Your task to perform on an android device: open app "Grab" (install if not already installed) and go to login screen Image 0: 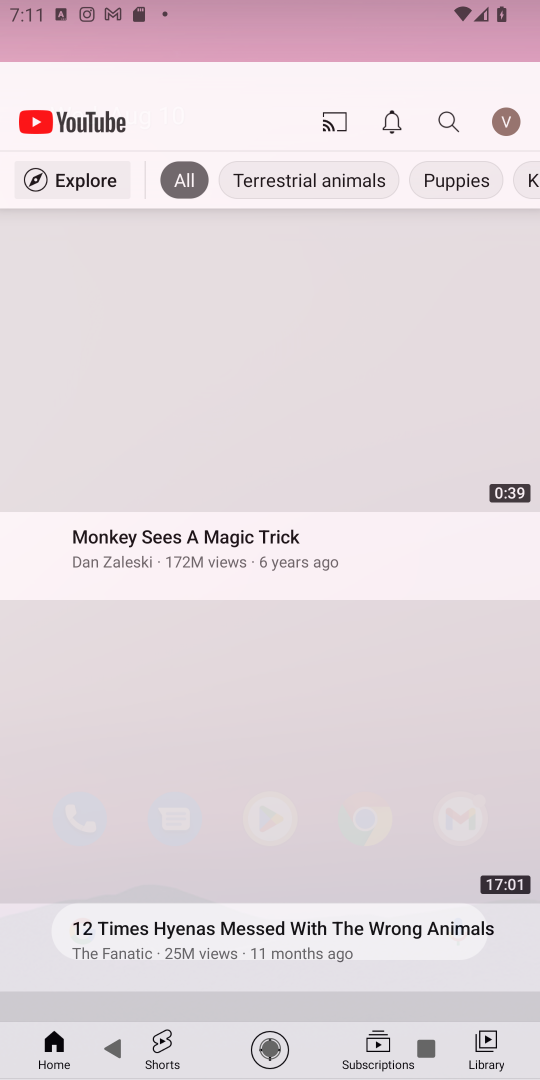
Step 0: press home button
Your task to perform on an android device: open app "Grab" (install if not already installed) and go to login screen Image 1: 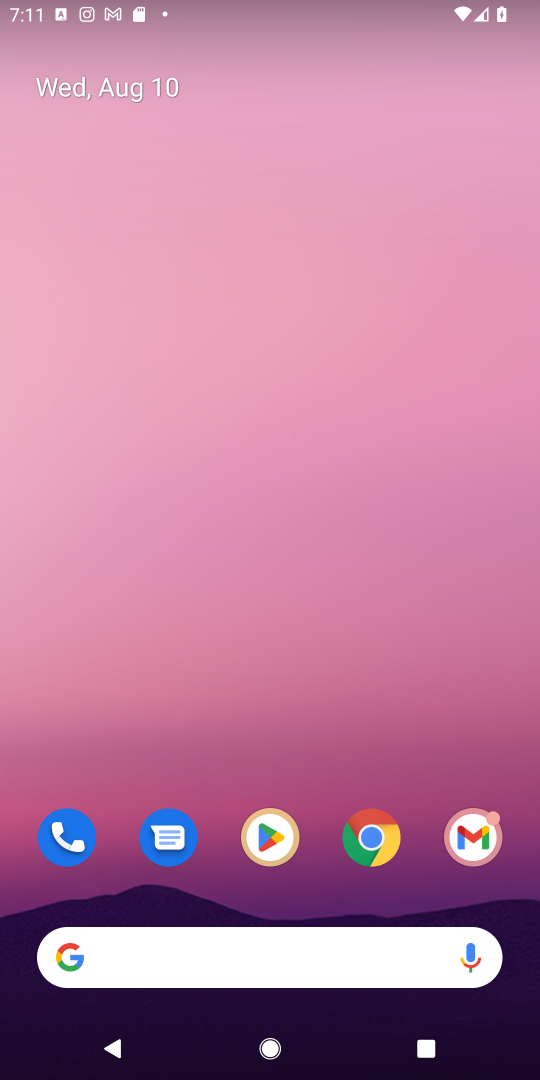
Step 1: click (265, 831)
Your task to perform on an android device: open app "Grab" (install if not already installed) and go to login screen Image 2: 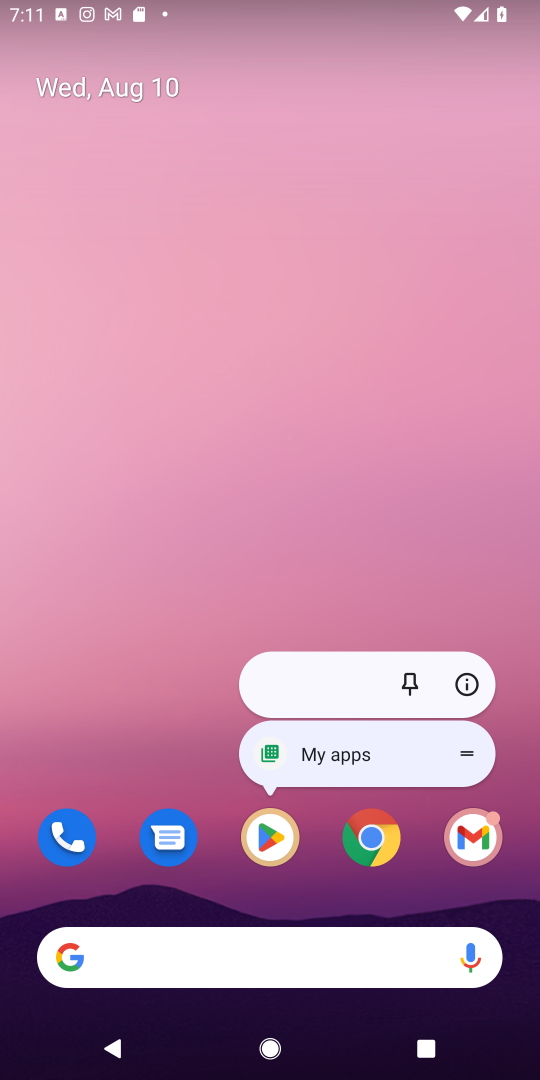
Step 2: click (265, 832)
Your task to perform on an android device: open app "Grab" (install if not already installed) and go to login screen Image 3: 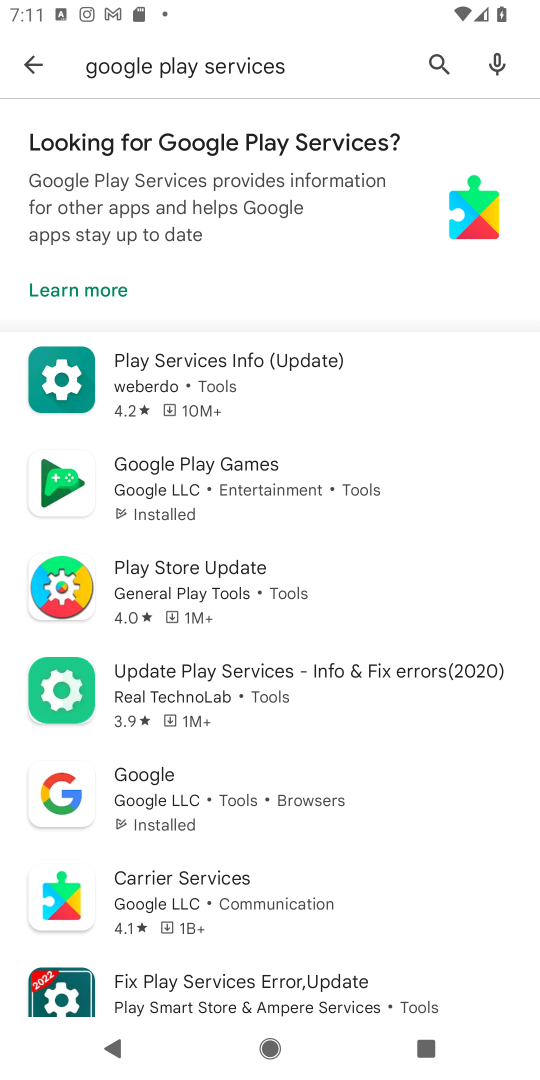
Step 3: click (433, 54)
Your task to perform on an android device: open app "Grab" (install if not already installed) and go to login screen Image 4: 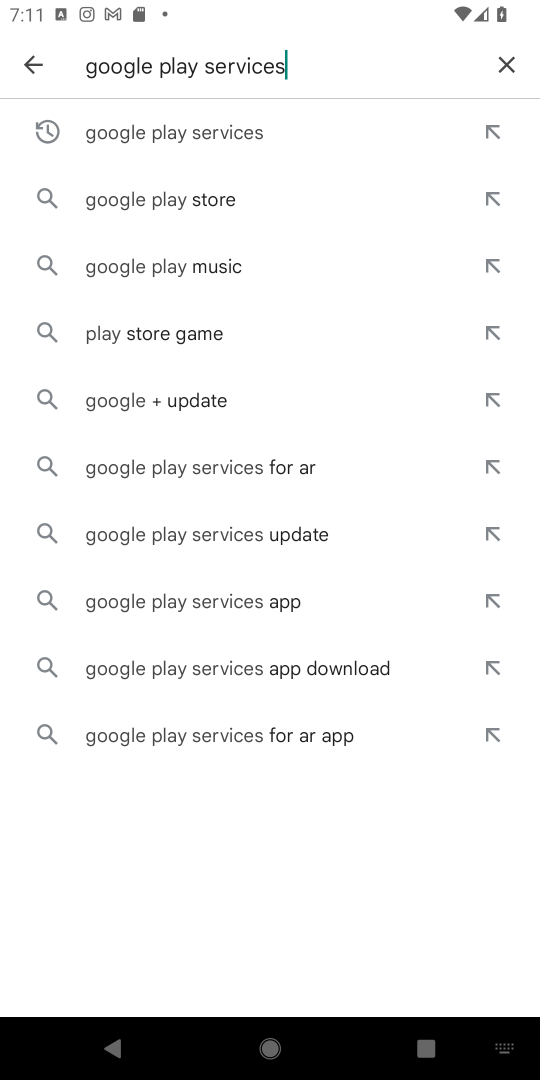
Step 4: click (510, 64)
Your task to perform on an android device: open app "Grab" (install if not already installed) and go to login screen Image 5: 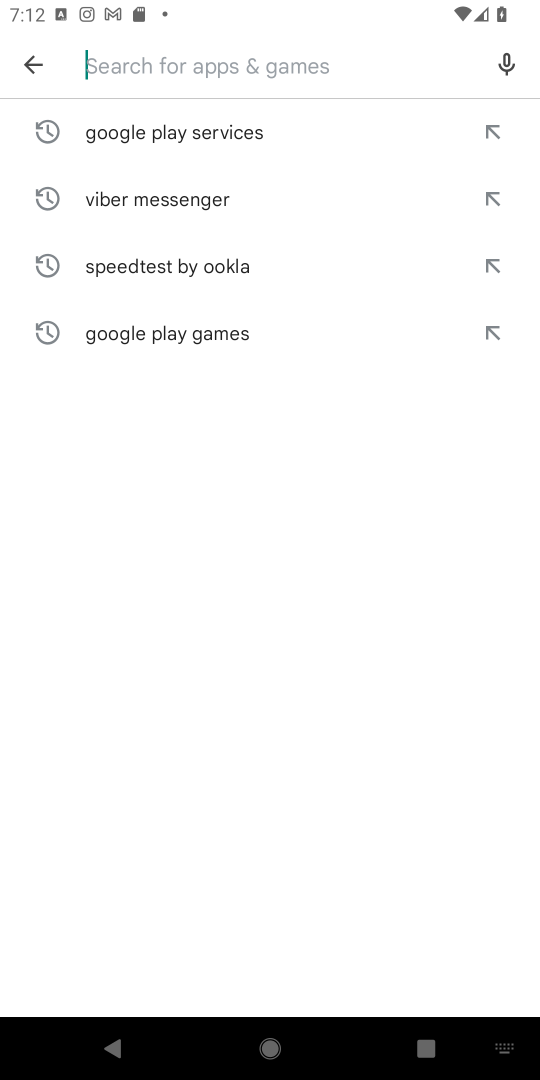
Step 5: type "Grab"
Your task to perform on an android device: open app "Grab" (install if not already installed) and go to login screen Image 6: 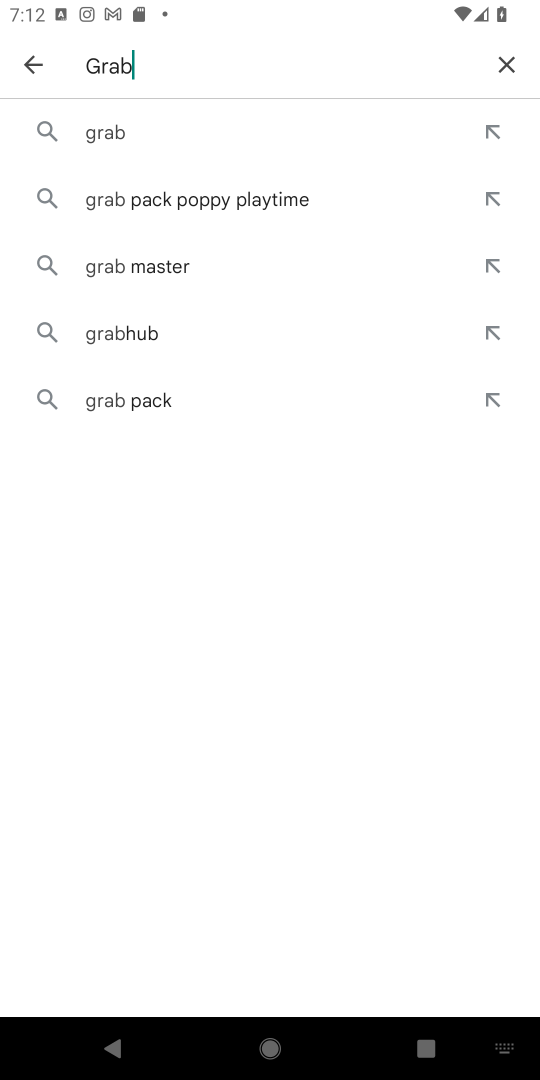
Step 6: click (124, 126)
Your task to perform on an android device: open app "Grab" (install if not already installed) and go to login screen Image 7: 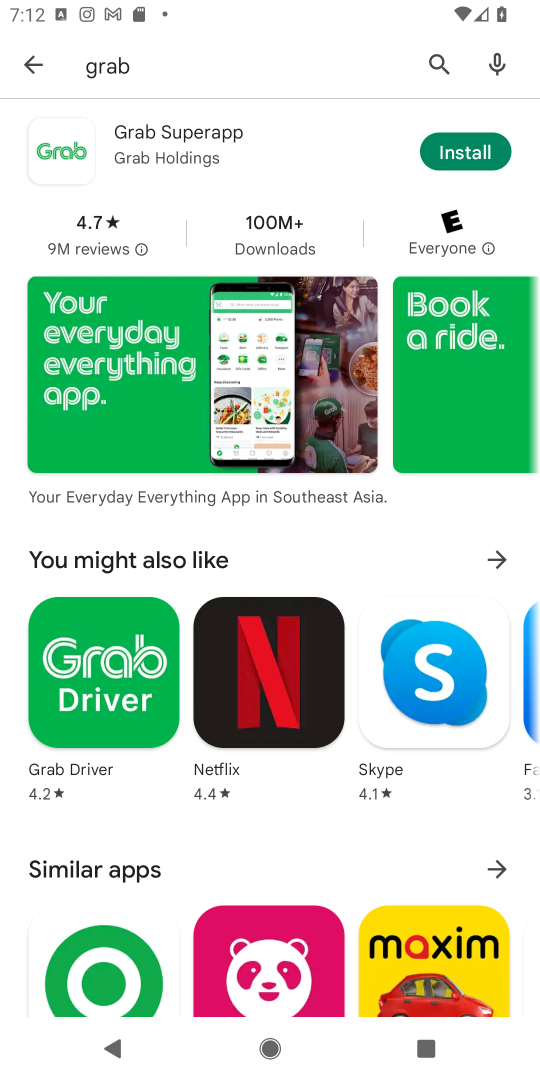
Step 7: click (482, 148)
Your task to perform on an android device: open app "Grab" (install if not already installed) and go to login screen Image 8: 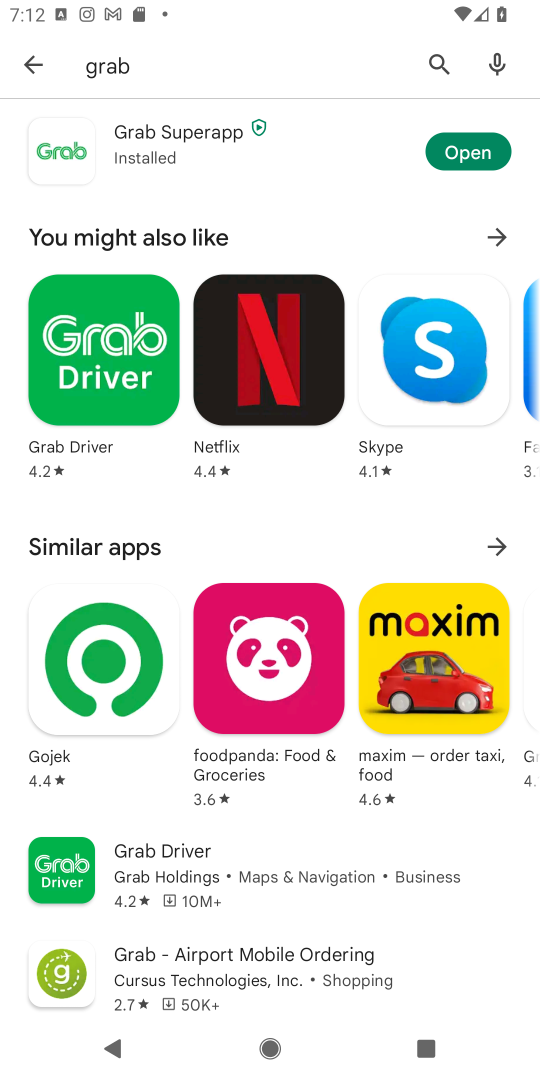
Step 8: click (480, 144)
Your task to perform on an android device: open app "Grab" (install if not already installed) and go to login screen Image 9: 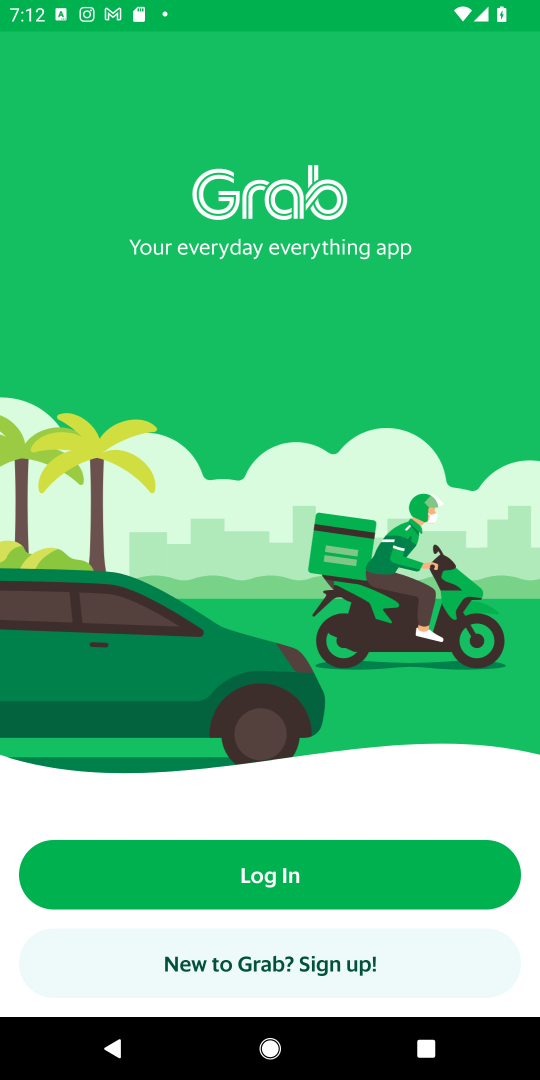
Step 9: click (273, 879)
Your task to perform on an android device: open app "Grab" (install if not already installed) and go to login screen Image 10: 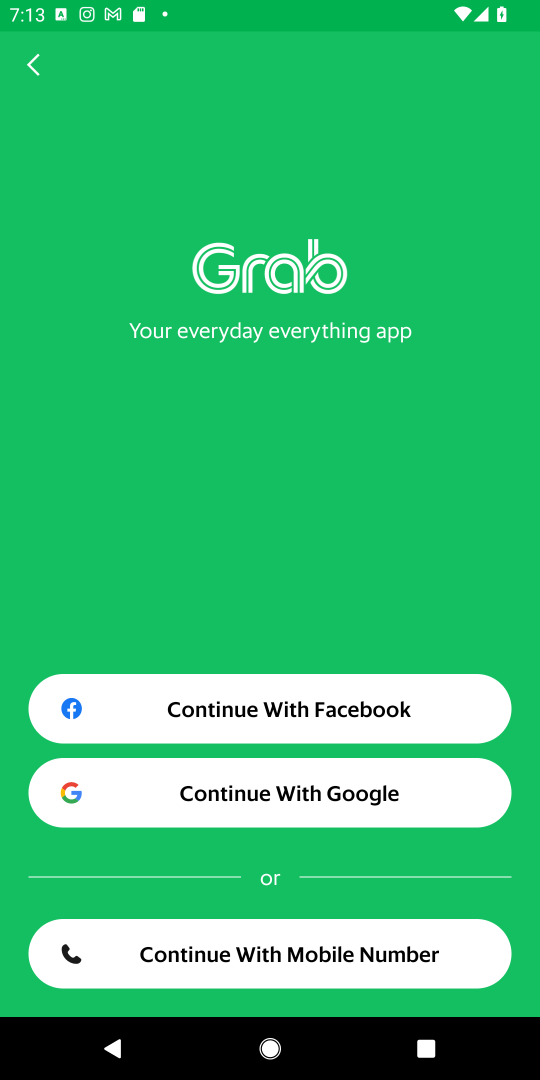
Step 10: task complete